Your task to perform on an android device: uninstall "Calculator" Image 0: 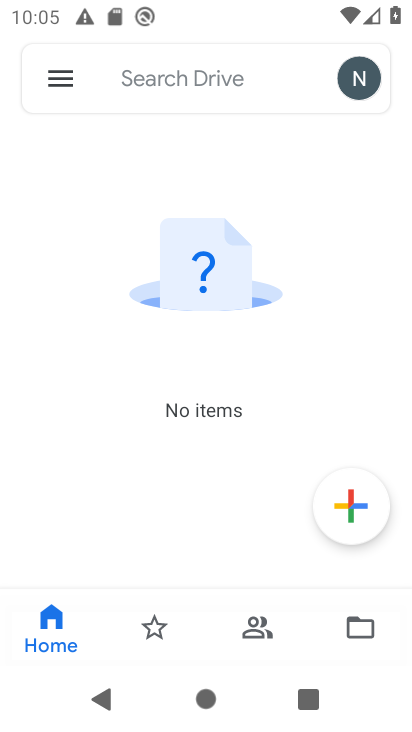
Step 0: press home button
Your task to perform on an android device: uninstall "Calculator" Image 1: 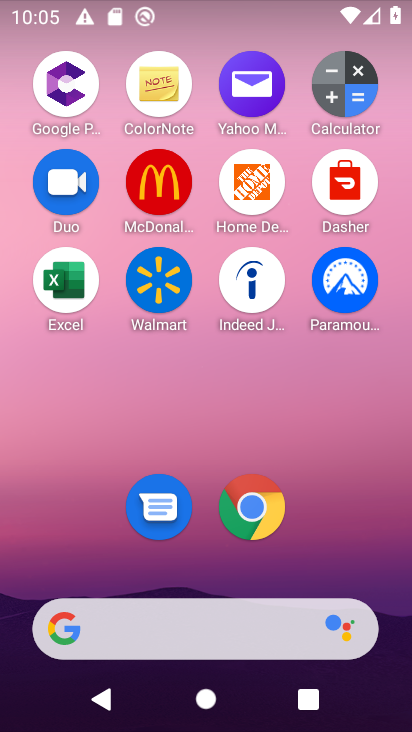
Step 1: drag from (394, 682) to (310, 154)
Your task to perform on an android device: uninstall "Calculator" Image 2: 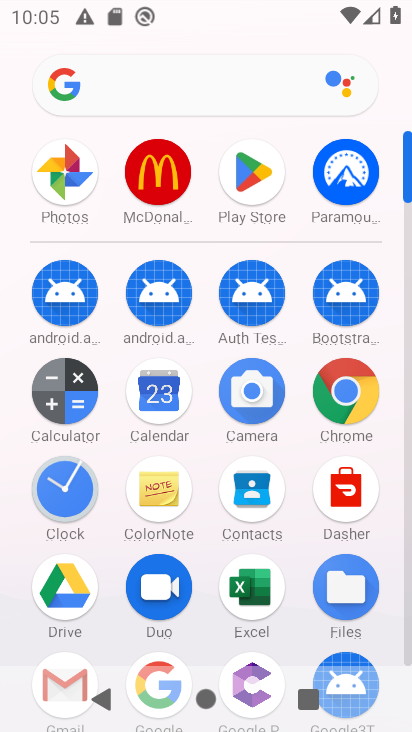
Step 2: click (407, 648)
Your task to perform on an android device: uninstall "Calculator" Image 3: 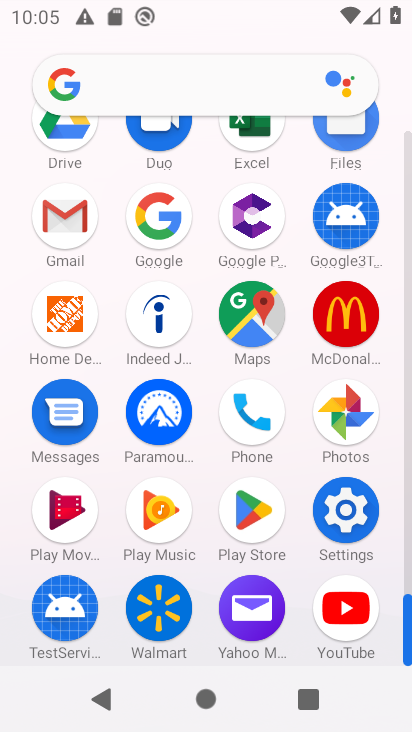
Step 3: click (255, 509)
Your task to perform on an android device: uninstall "Calculator" Image 4: 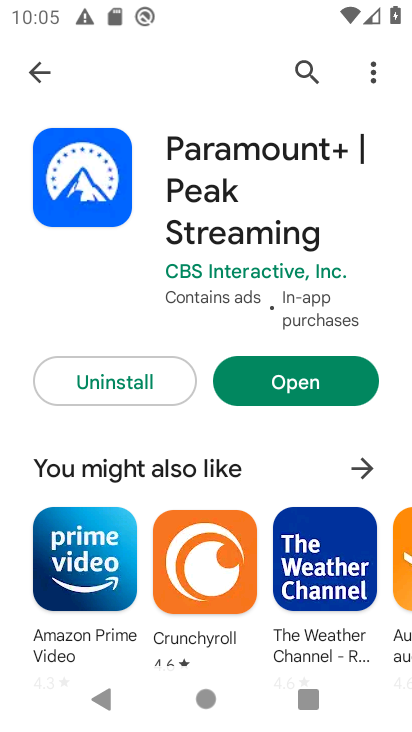
Step 4: click (301, 68)
Your task to perform on an android device: uninstall "Calculator" Image 5: 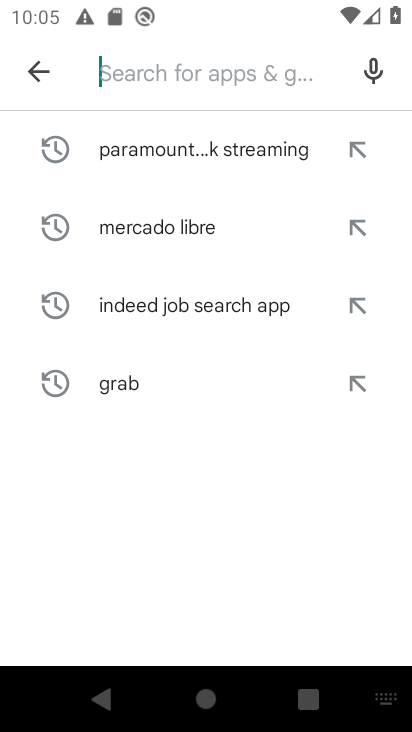
Step 5: type "Calculator"
Your task to perform on an android device: uninstall "Calculator" Image 6: 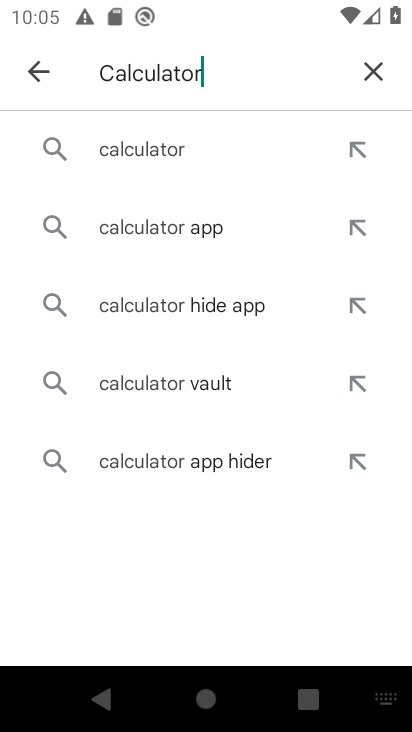
Step 6: click (118, 132)
Your task to perform on an android device: uninstall "Calculator" Image 7: 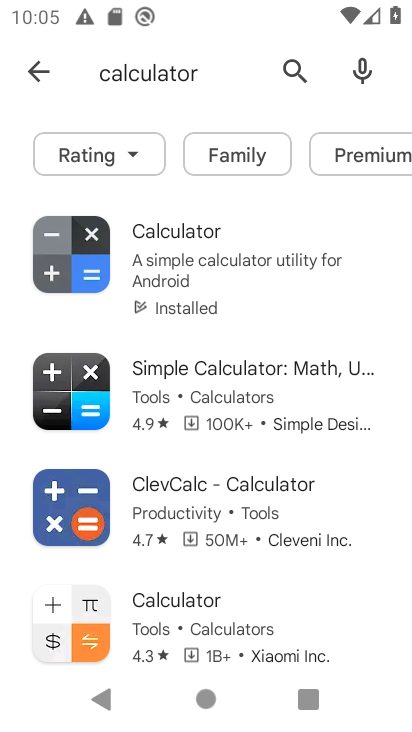
Step 7: click (141, 246)
Your task to perform on an android device: uninstall "Calculator" Image 8: 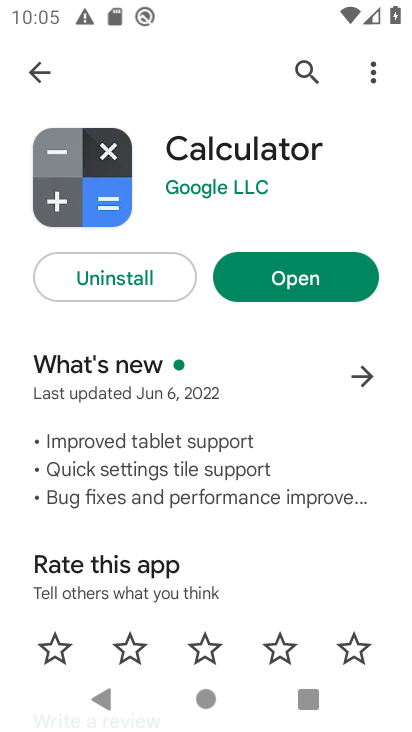
Step 8: click (101, 279)
Your task to perform on an android device: uninstall "Calculator" Image 9: 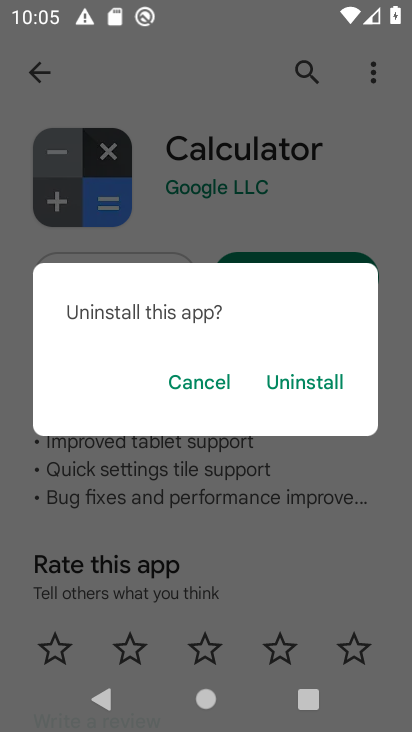
Step 9: click (307, 384)
Your task to perform on an android device: uninstall "Calculator" Image 10: 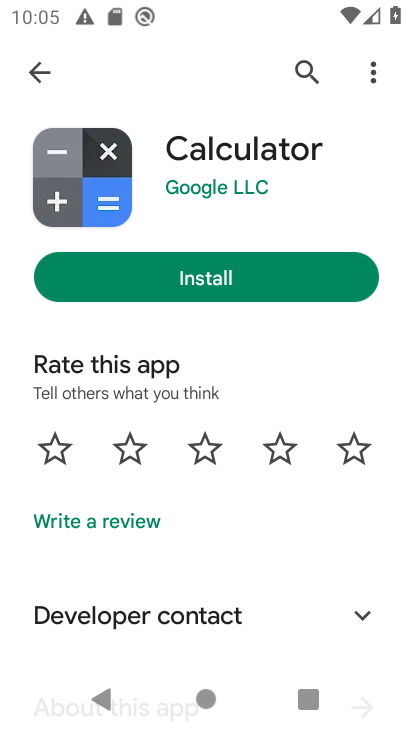
Step 10: task complete